Your task to perform on an android device: What is the news today? Image 0: 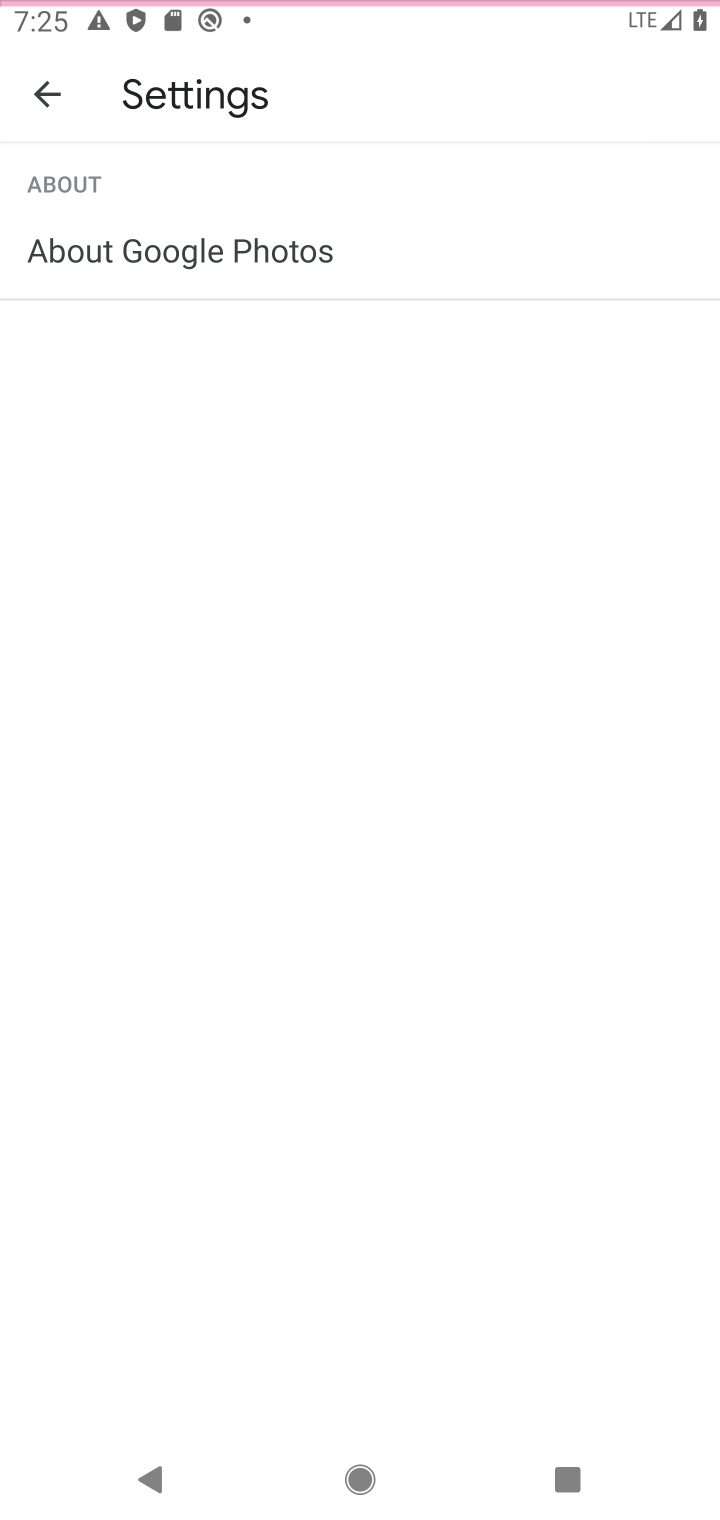
Step 0: press home button
Your task to perform on an android device: What is the news today? Image 1: 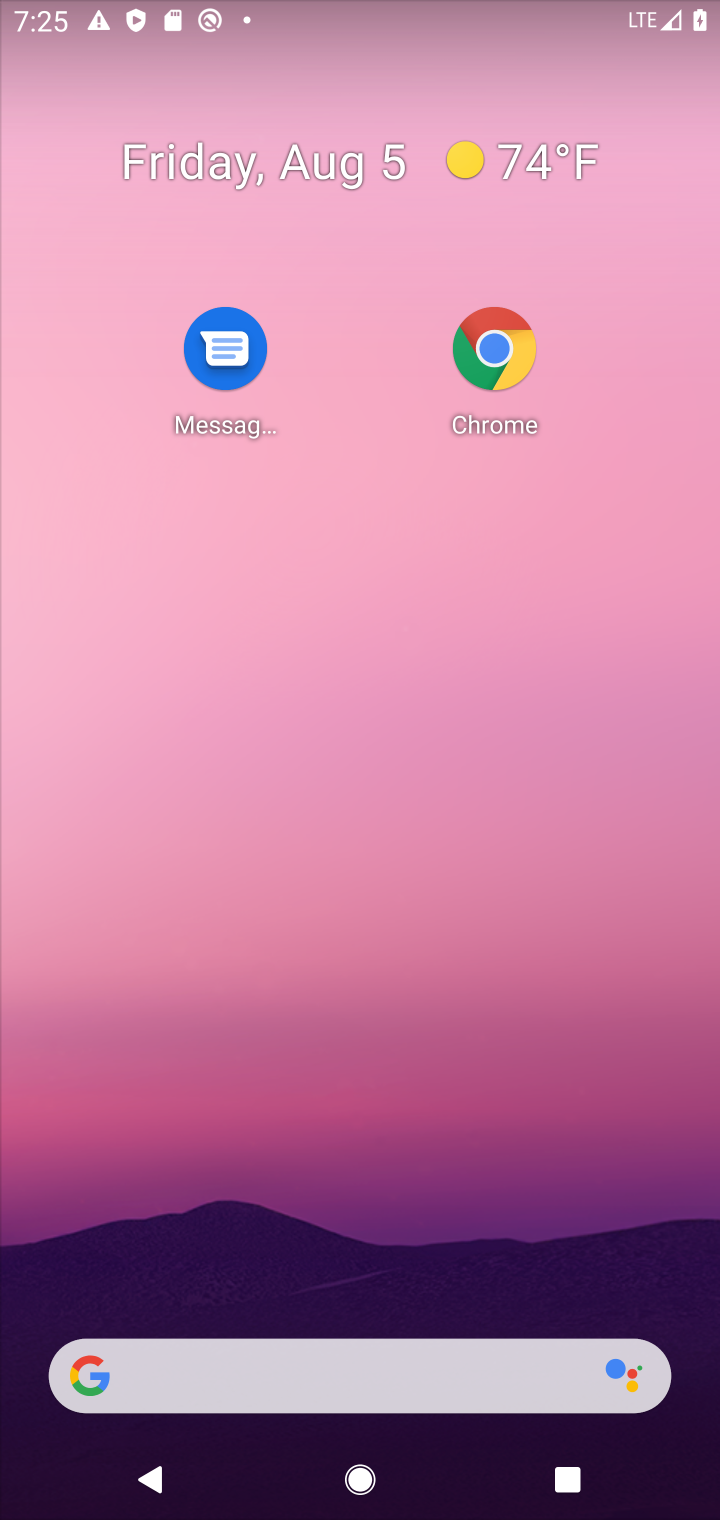
Step 1: drag from (435, 1279) to (611, 367)
Your task to perform on an android device: What is the news today? Image 2: 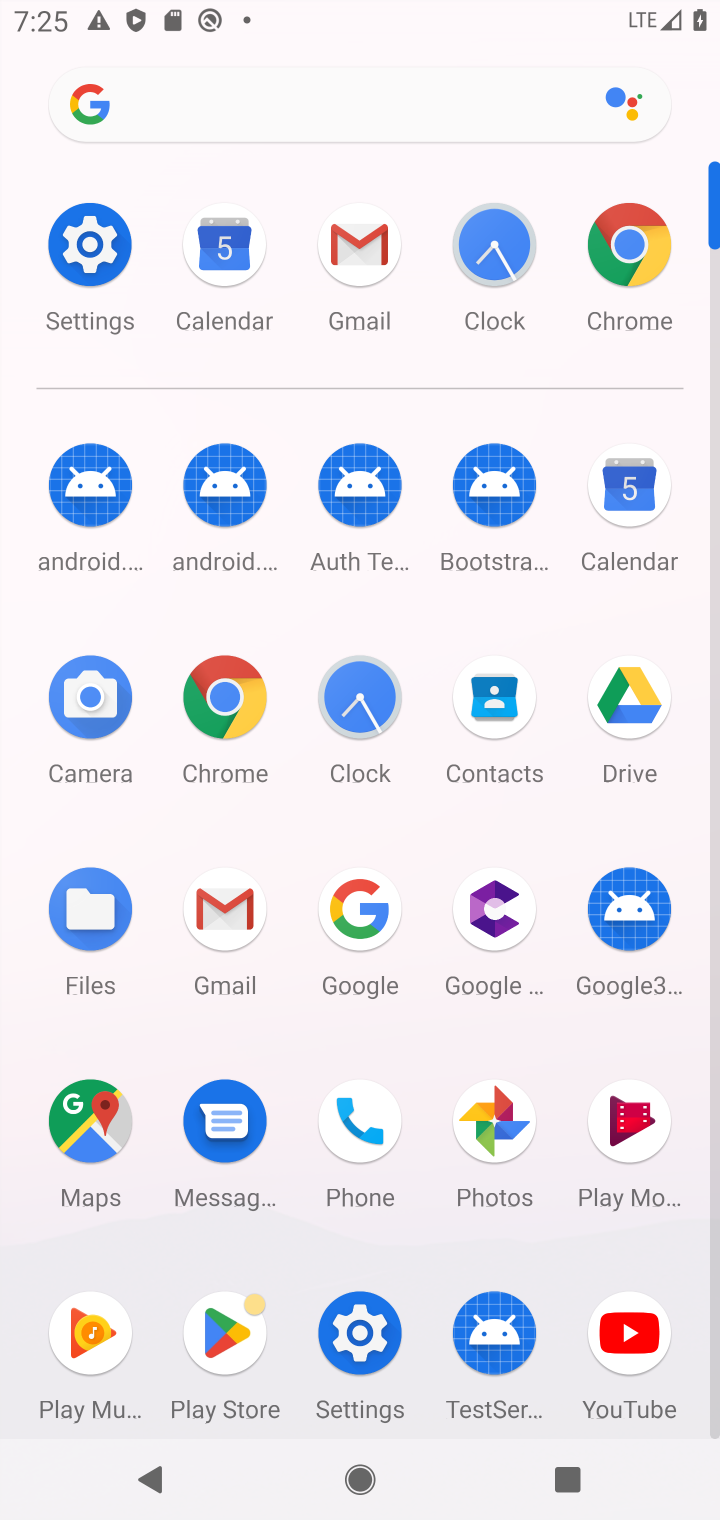
Step 2: click (288, 114)
Your task to perform on an android device: What is the news today? Image 3: 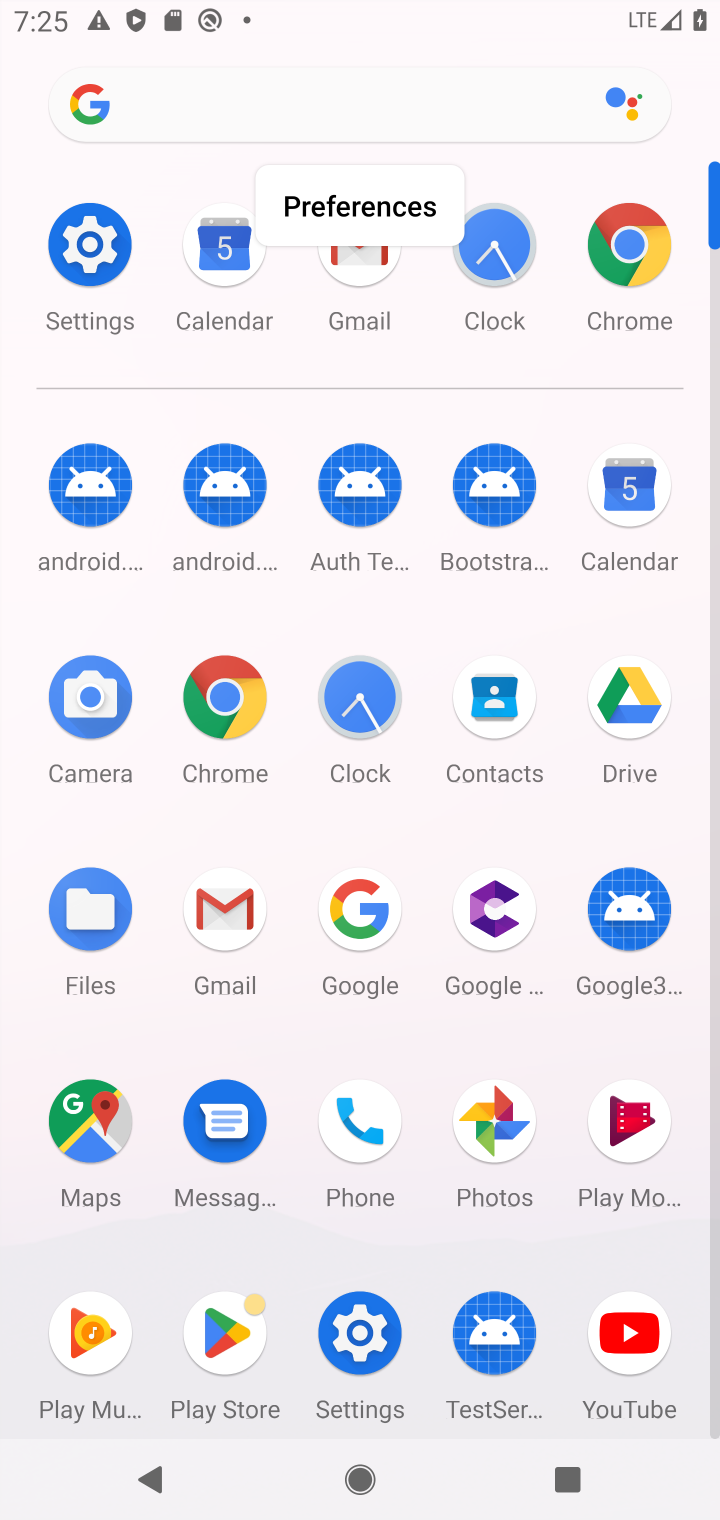
Step 3: click (264, 108)
Your task to perform on an android device: What is the news today? Image 4: 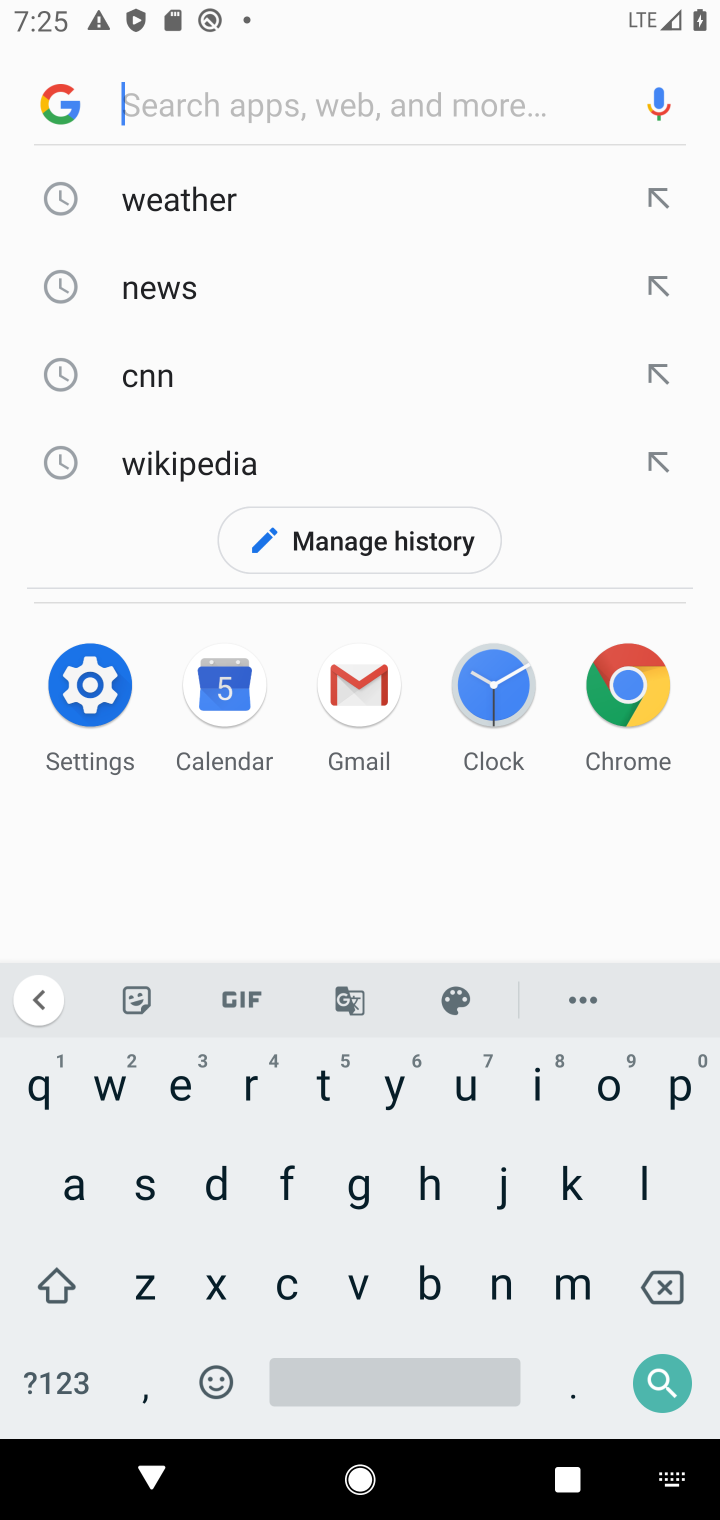
Step 4: click (153, 286)
Your task to perform on an android device: What is the news today? Image 5: 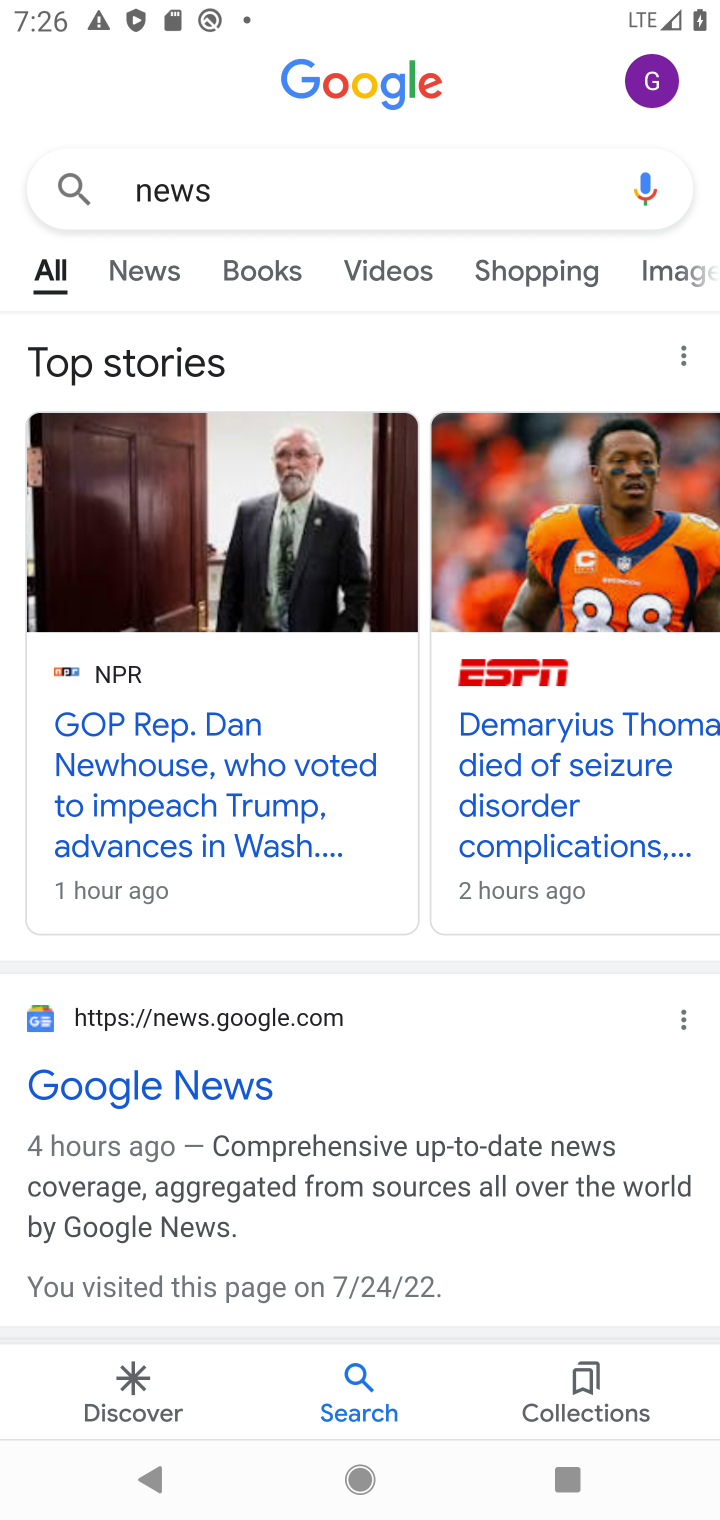
Step 5: task complete